Your task to perform on an android device: Open wifi settings Image 0: 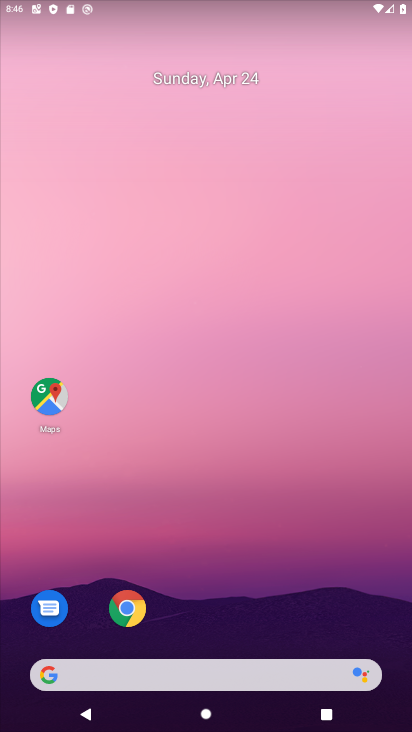
Step 0: drag from (321, 701) to (298, 148)
Your task to perform on an android device: Open wifi settings Image 1: 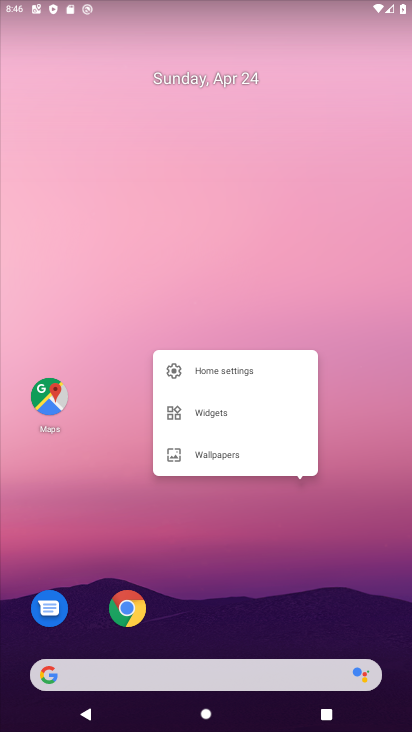
Step 1: click (354, 512)
Your task to perform on an android device: Open wifi settings Image 2: 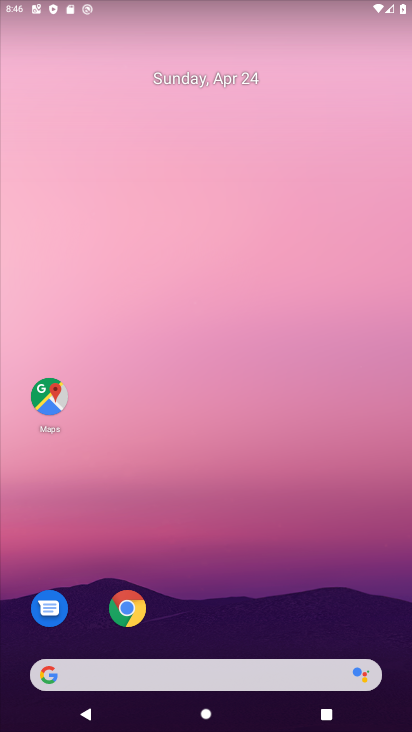
Step 2: drag from (270, 660) to (250, 114)
Your task to perform on an android device: Open wifi settings Image 3: 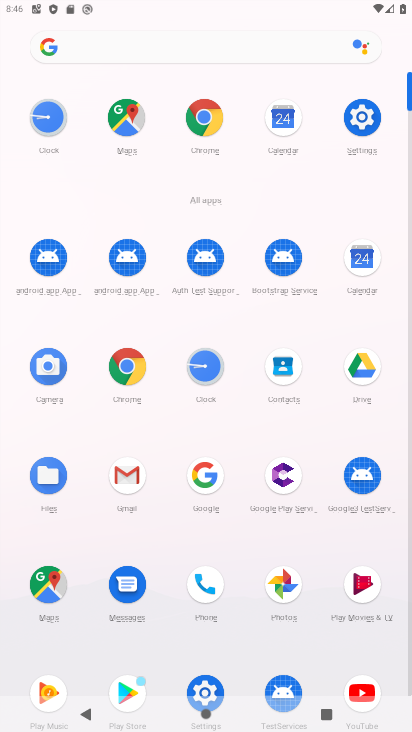
Step 3: click (360, 126)
Your task to perform on an android device: Open wifi settings Image 4: 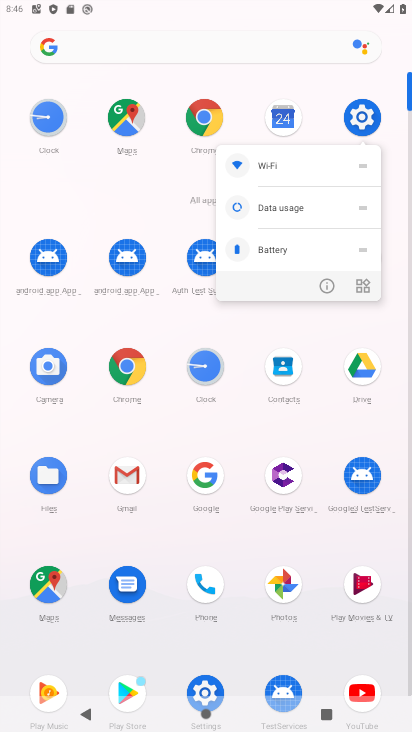
Step 4: click (364, 120)
Your task to perform on an android device: Open wifi settings Image 5: 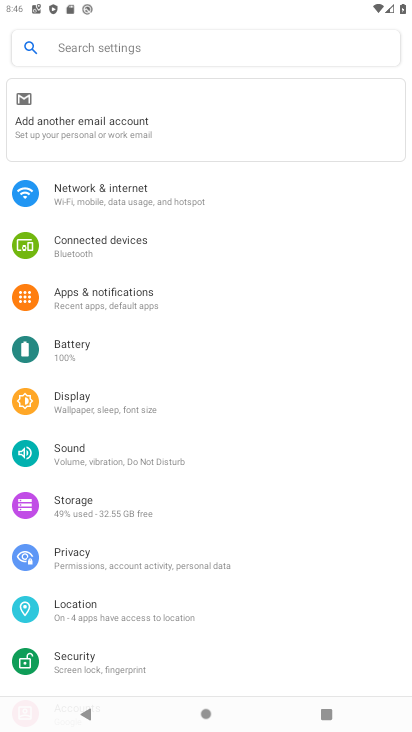
Step 5: click (119, 185)
Your task to perform on an android device: Open wifi settings Image 6: 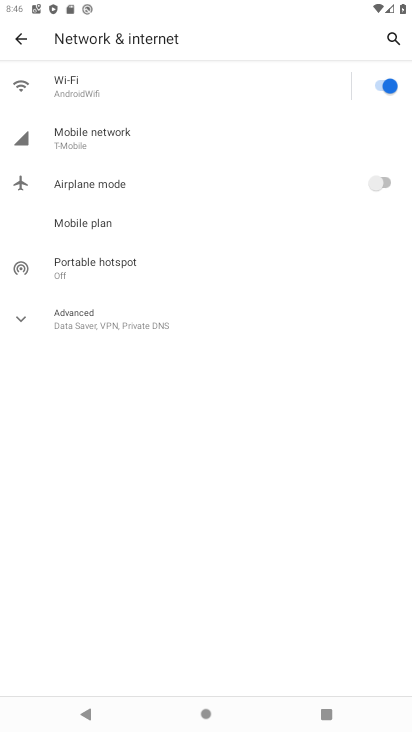
Step 6: click (160, 100)
Your task to perform on an android device: Open wifi settings Image 7: 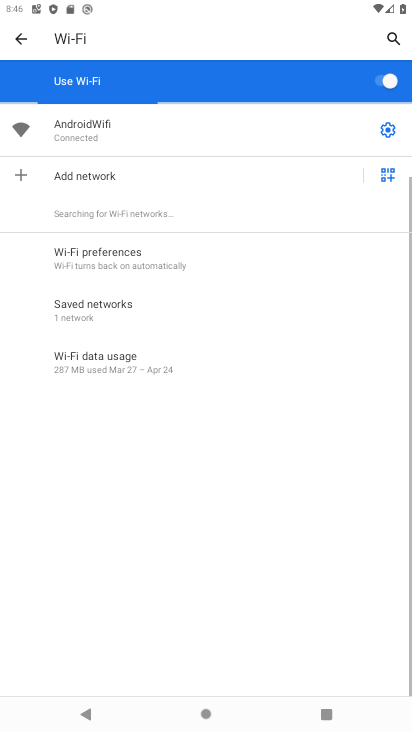
Step 7: task complete